Your task to perform on an android device: When is my next appointment? Image 0: 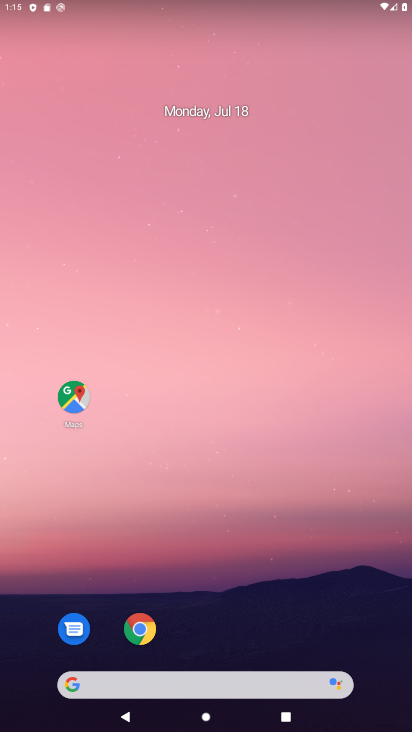
Step 0: drag from (218, 612) to (208, 239)
Your task to perform on an android device: When is my next appointment? Image 1: 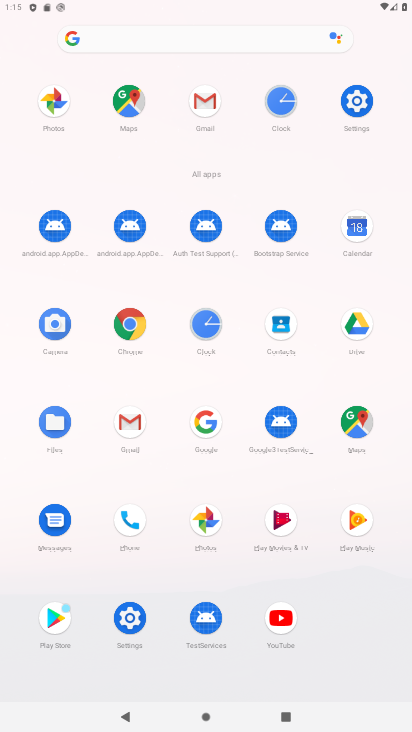
Step 1: click (361, 227)
Your task to perform on an android device: When is my next appointment? Image 2: 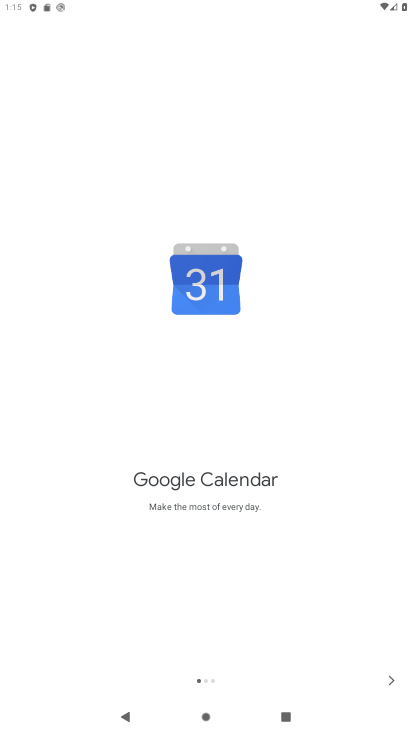
Step 2: click (125, 718)
Your task to perform on an android device: When is my next appointment? Image 3: 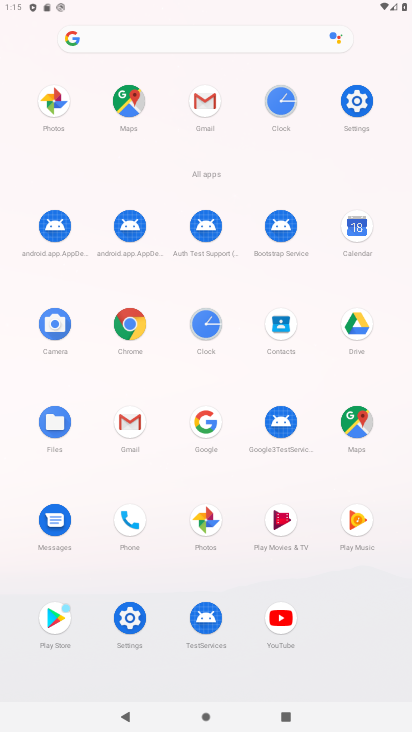
Step 3: task complete